Your task to perform on an android device: add a contact Image 0: 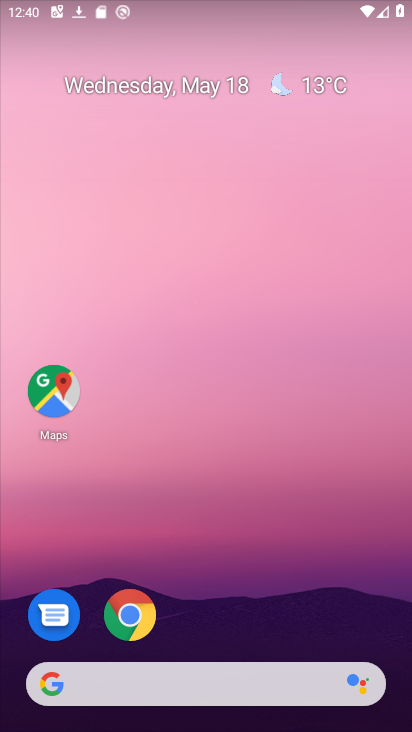
Step 0: drag from (409, 656) to (403, 383)
Your task to perform on an android device: add a contact Image 1: 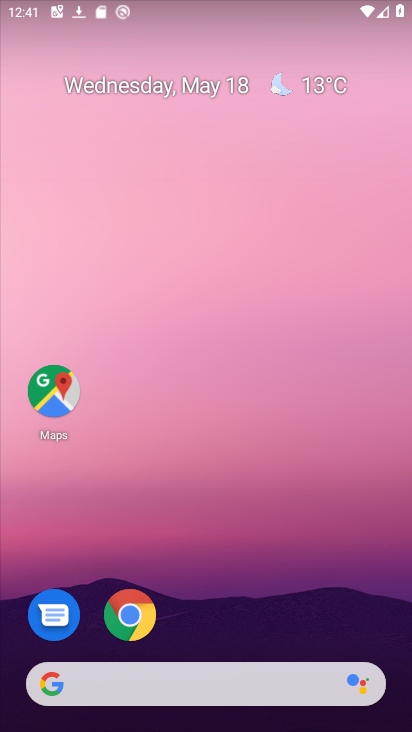
Step 1: drag from (405, 668) to (403, 304)
Your task to perform on an android device: add a contact Image 2: 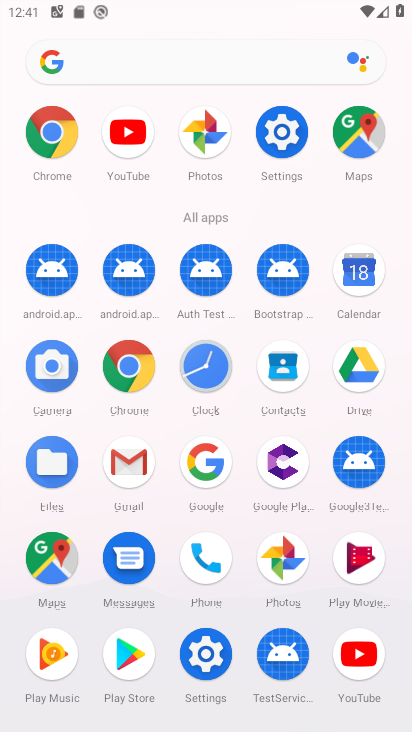
Step 2: click (267, 382)
Your task to perform on an android device: add a contact Image 3: 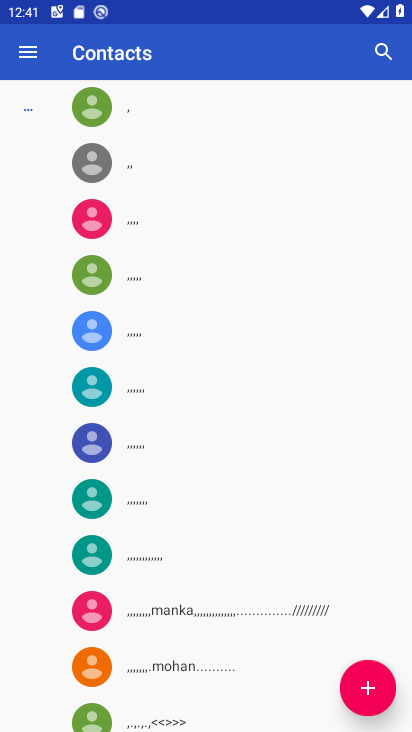
Step 3: click (373, 696)
Your task to perform on an android device: add a contact Image 4: 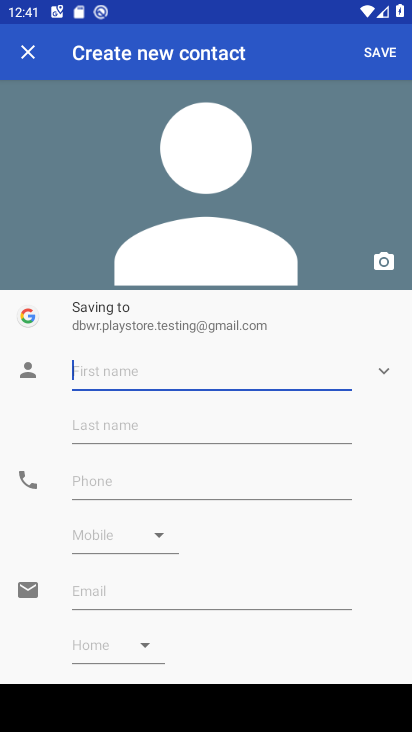
Step 4: click (242, 357)
Your task to perform on an android device: add a contact Image 5: 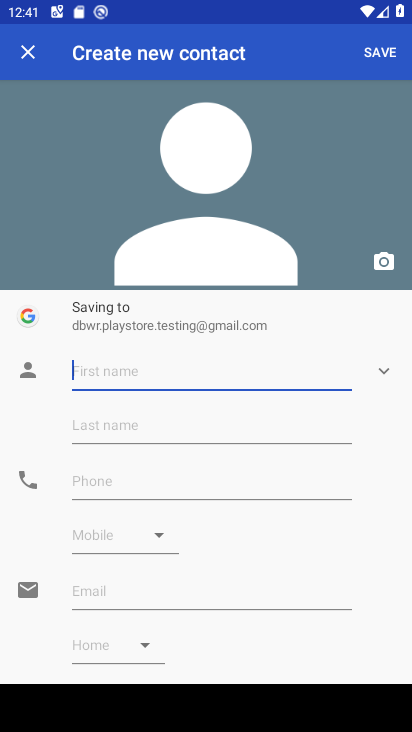
Step 5: type "hbjhh"
Your task to perform on an android device: add a contact Image 6: 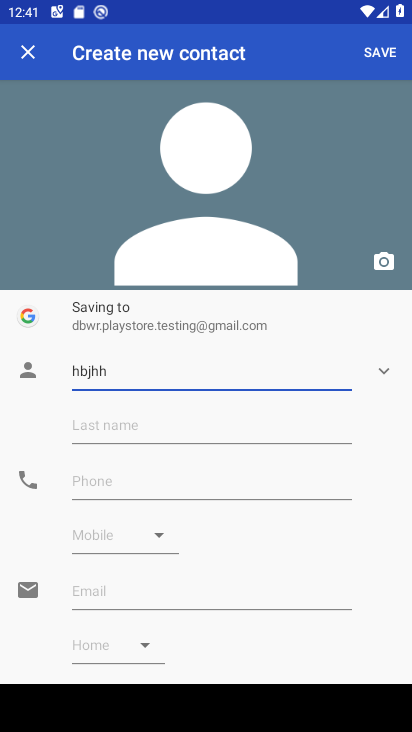
Step 6: click (116, 428)
Your task to perform on an android device: add a contact Image 7: 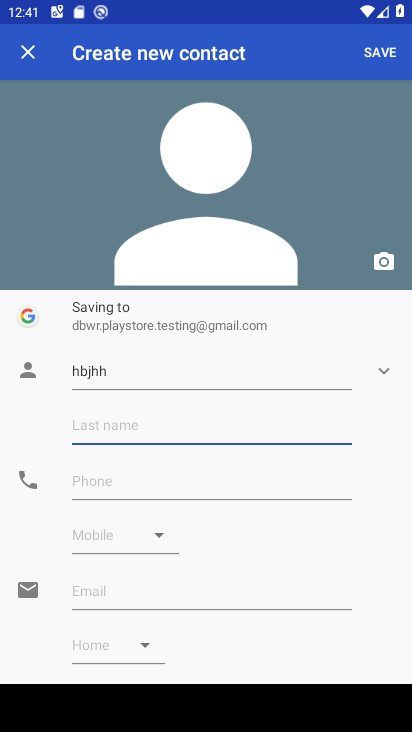
Step 7: type "ffrgdgf"
Your task to perform on an android device: add a contact Image 8: 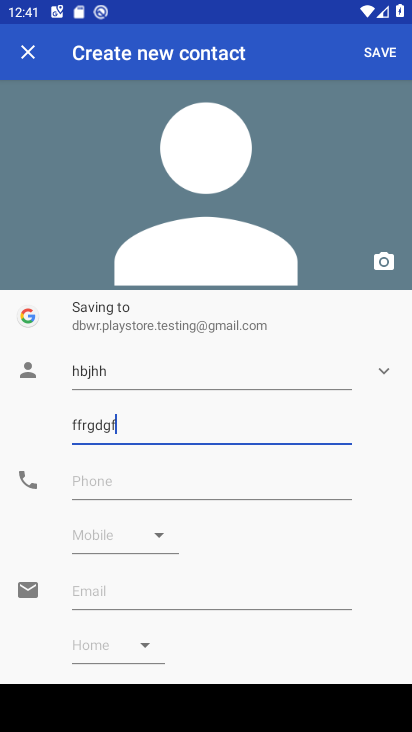
Step 8: click (173, 484)
Your task to perform on an android device: add a contact Image 9: 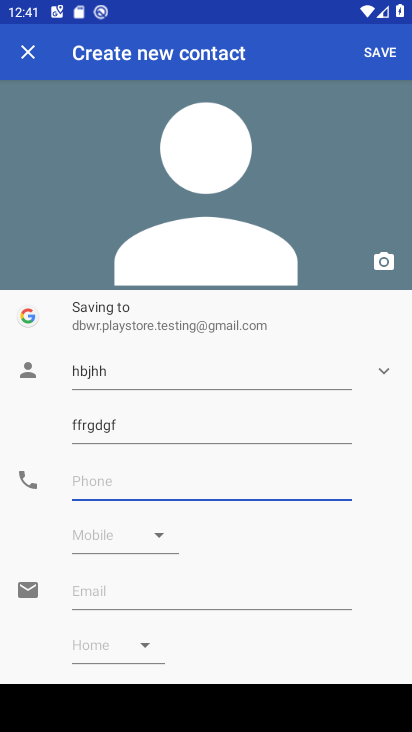
Step 9: type "2345663245"
Your task to perform on an android device: add a contact Image 10: 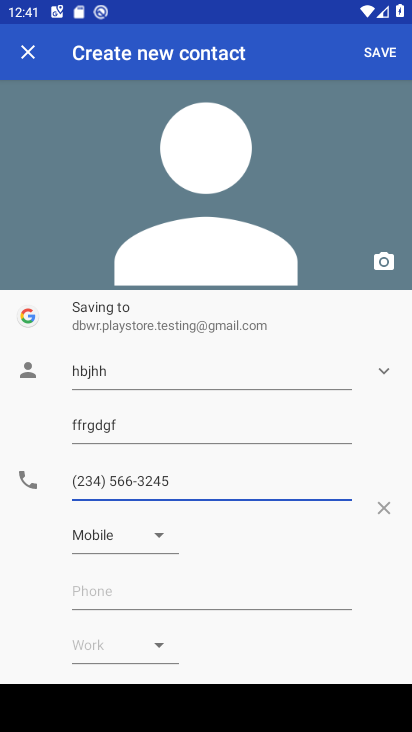
Step 10: click (373, 51)
Your task to perform on an android device: add a contact Image 11: 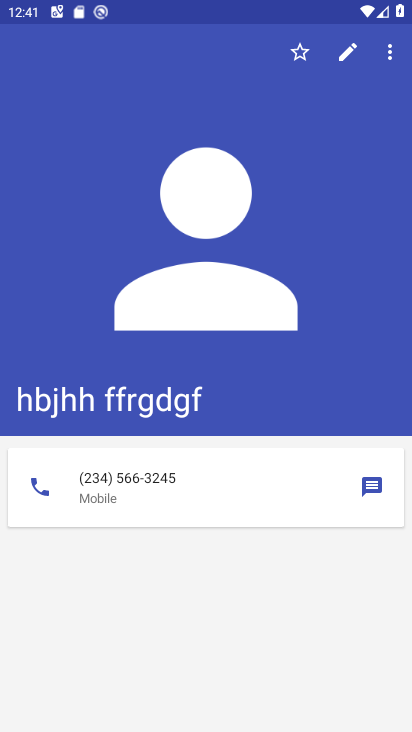
Step 11: task complete